Your task to perform on an android device: Toggle the flashlight Image 0: 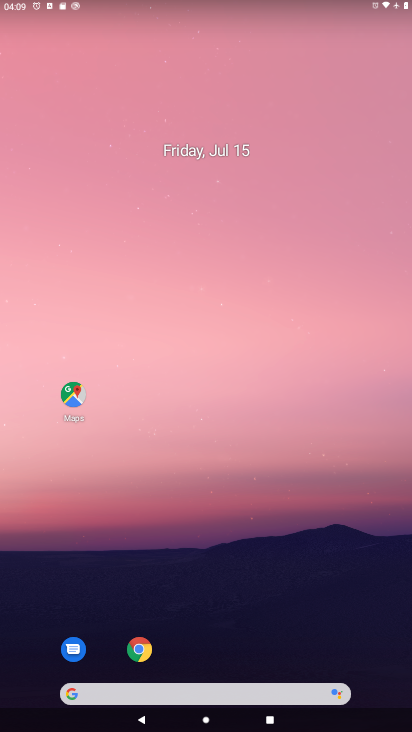
Step 0: drag from (217, 15) to (292, 561)
Your task to perform on an android device: Toggle the flashlight Image 1: 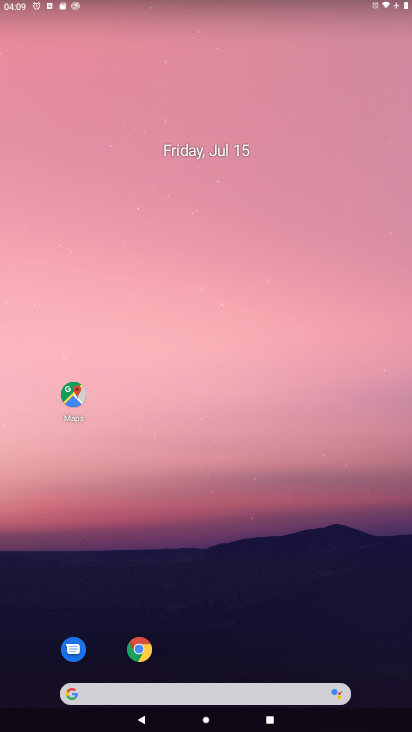
Step 1: drag from (232, 14) to (231, 496)
Your task to perform on an android device: Toggle the flashlight Image 2: 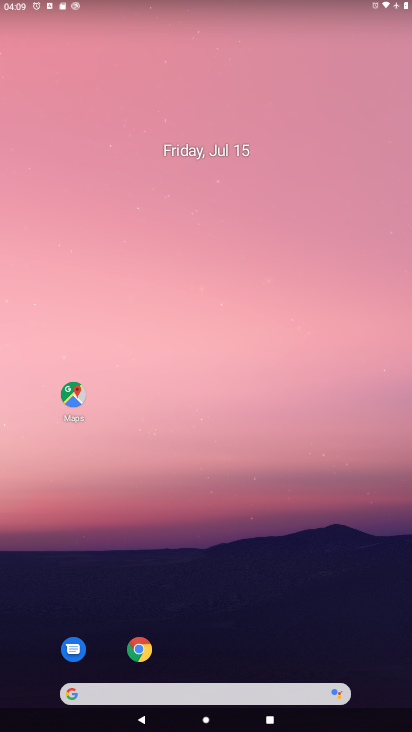
Step 2: drag from (213, 13) to (195, 668)
Your task to perform on an android device: Toggle the flashlight Image 3: 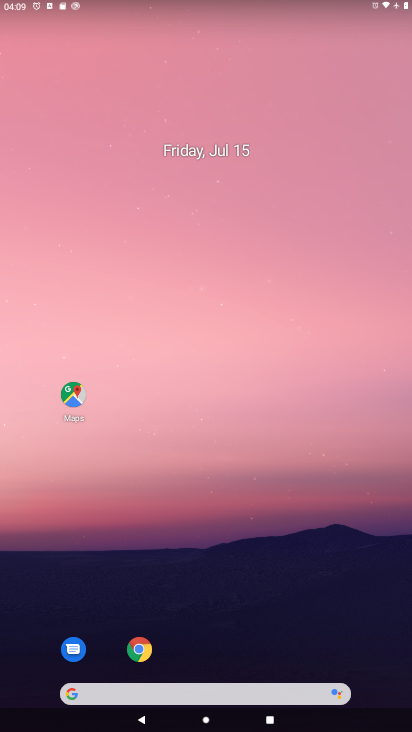
Step 3: drag from (222, 10) to (208, 446)
Your task to perform on an android device: Toggle the flashlight Image 4: 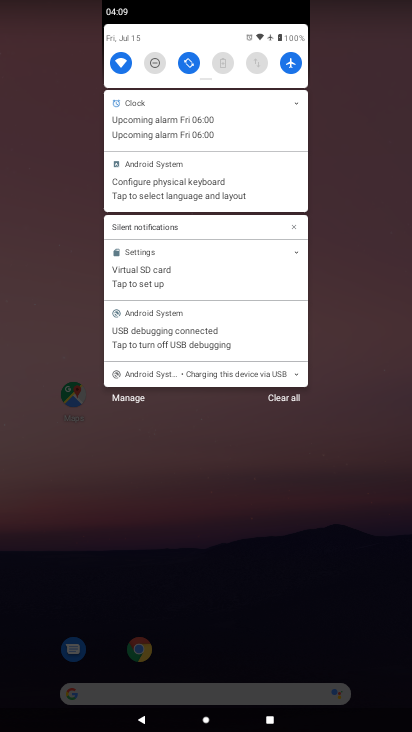
Step 4: drag from (205, 82) to (209, 404)
Your task to perform on an android device: Toggle the flashlight Image 5: 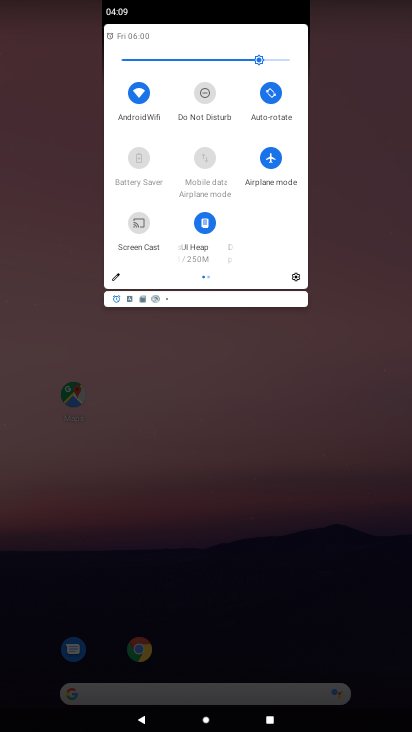
Step 5: click (113, 273)
Your task to perform on an android device: Toggle the flashlight Image 6: 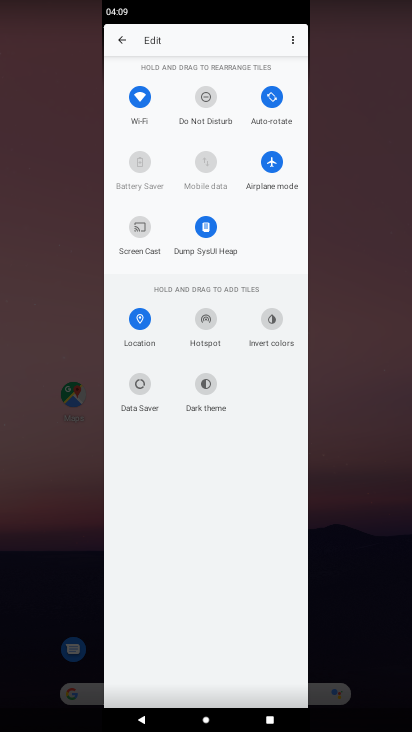
Step 6: task complete